Your task to perform on an android device: What's the weather going to be this weekend? Image 0: 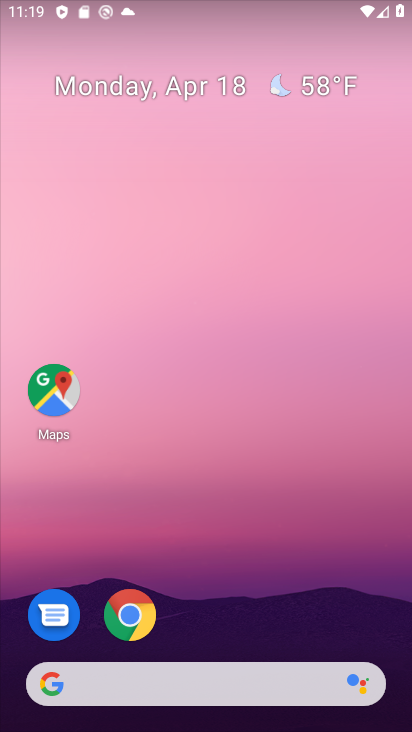
Step 0: click (245, 686)
Your task to perform on an android device: What's the weather going to be this weekend? Image 1: 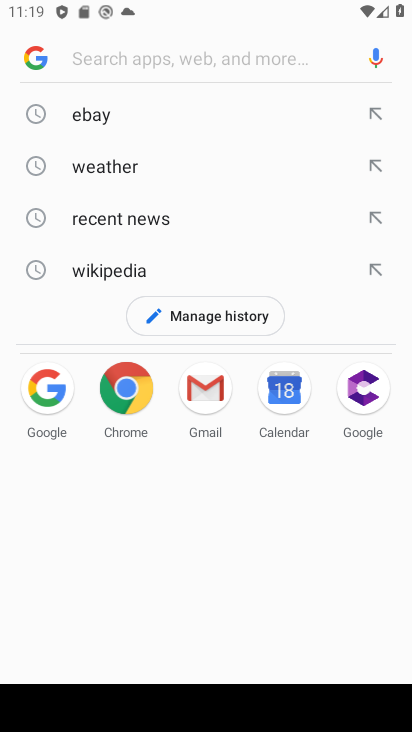
Step 1: click (125, 153)
Your task to perform on an android device: What's the weather going to be this weekend? Image 2: 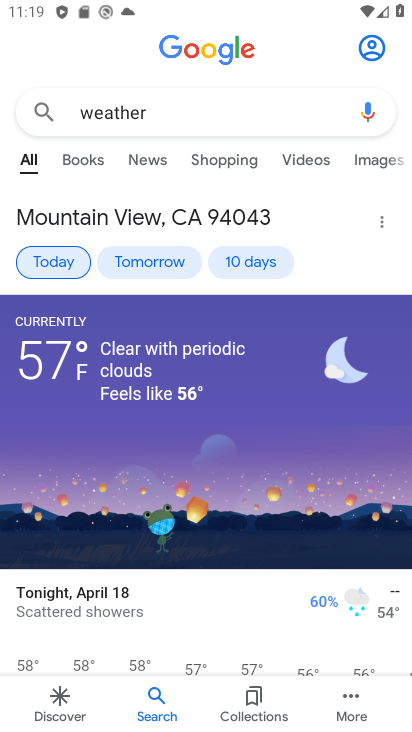
Step 2: click (241, 253)
Your task to perform on an android device: What's the weather going to be this weekend? Image 3: 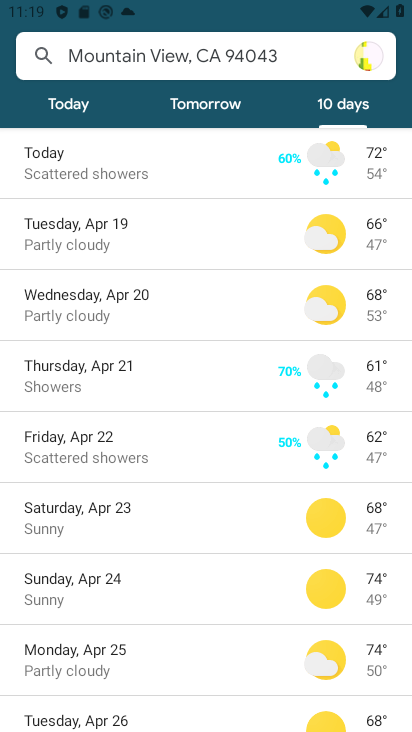
Step 3: task complete